Your task to perform on an android device: show emergency info Image 0: 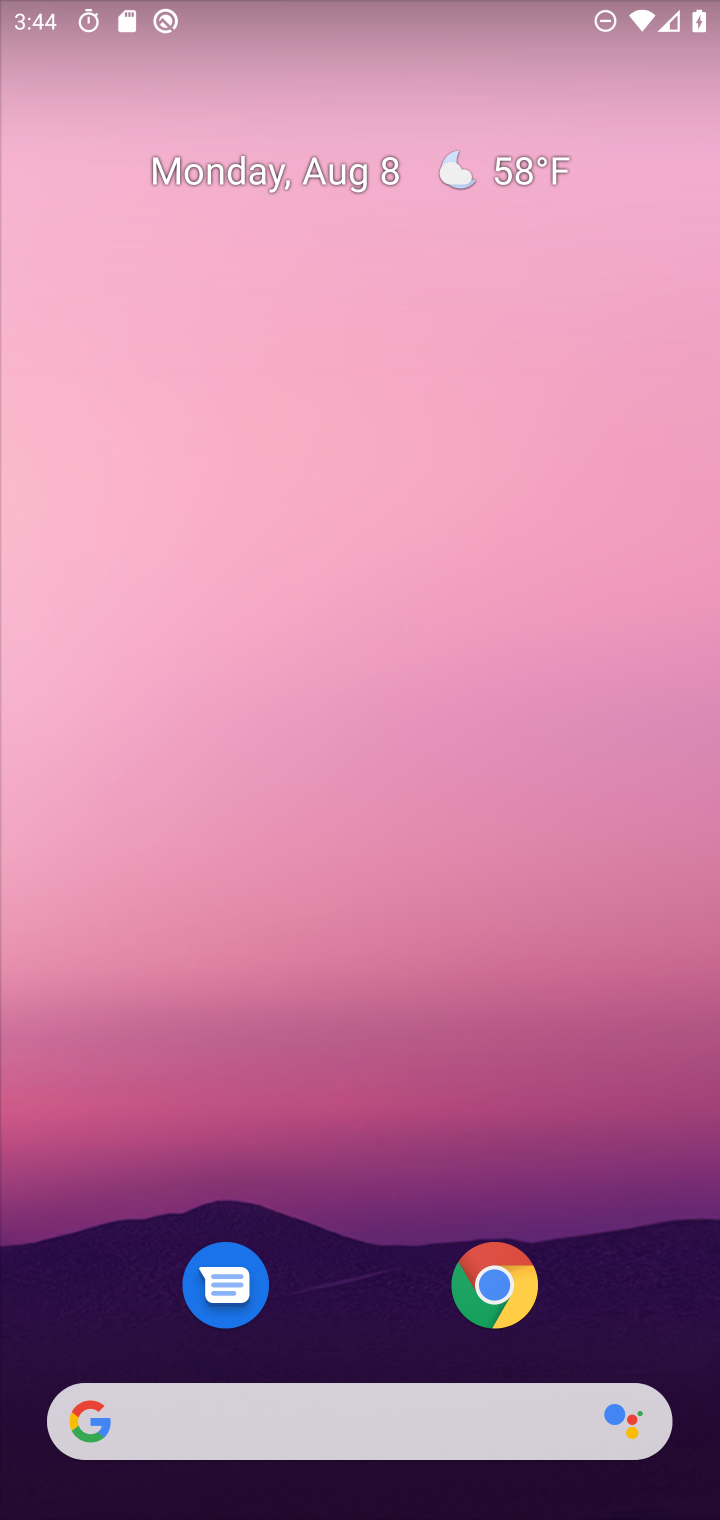
Step 0: drag from (454, 1395) to (718, 33)
Your task to perform on an android device: show emergency info Image 1: 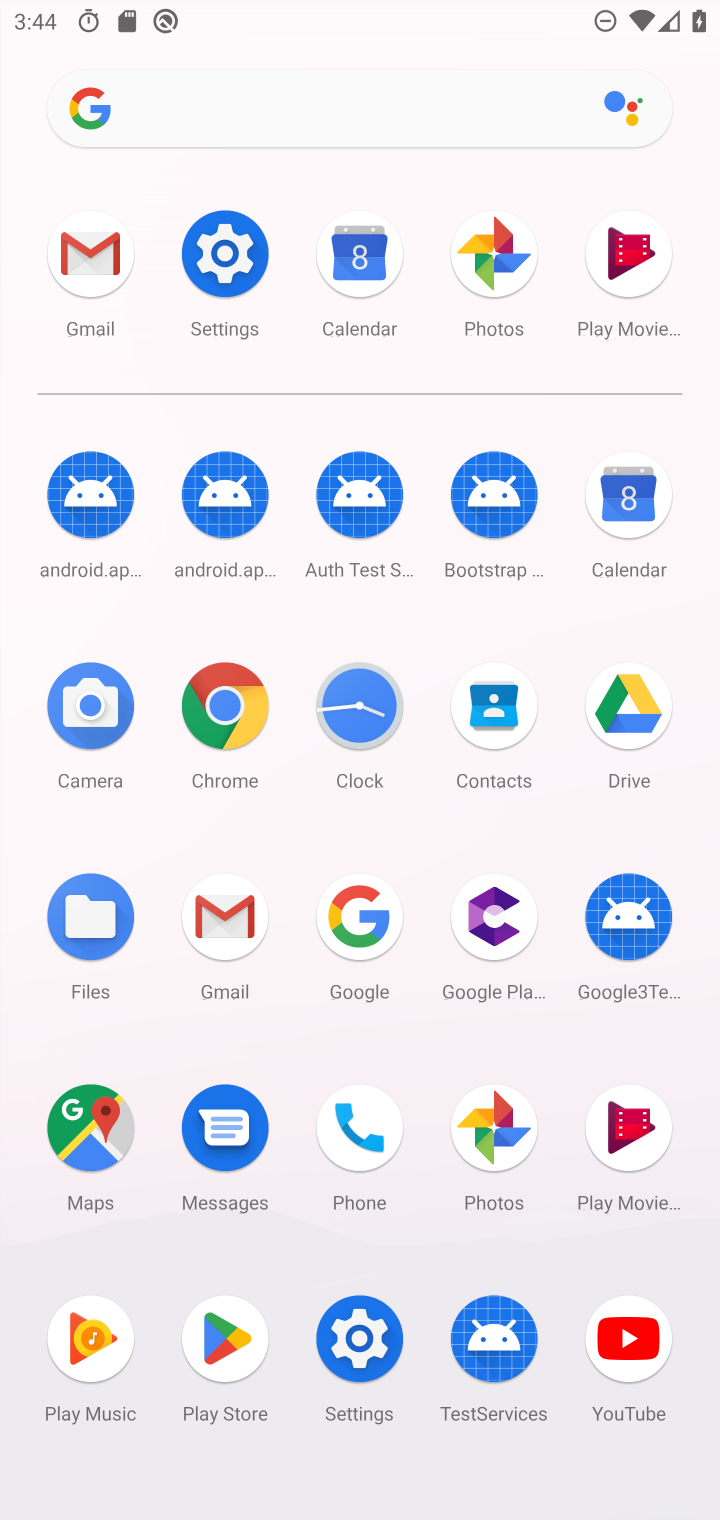
Step 1: click (227, 254)
Your task to perform on an android device: show emergency info Image 2: 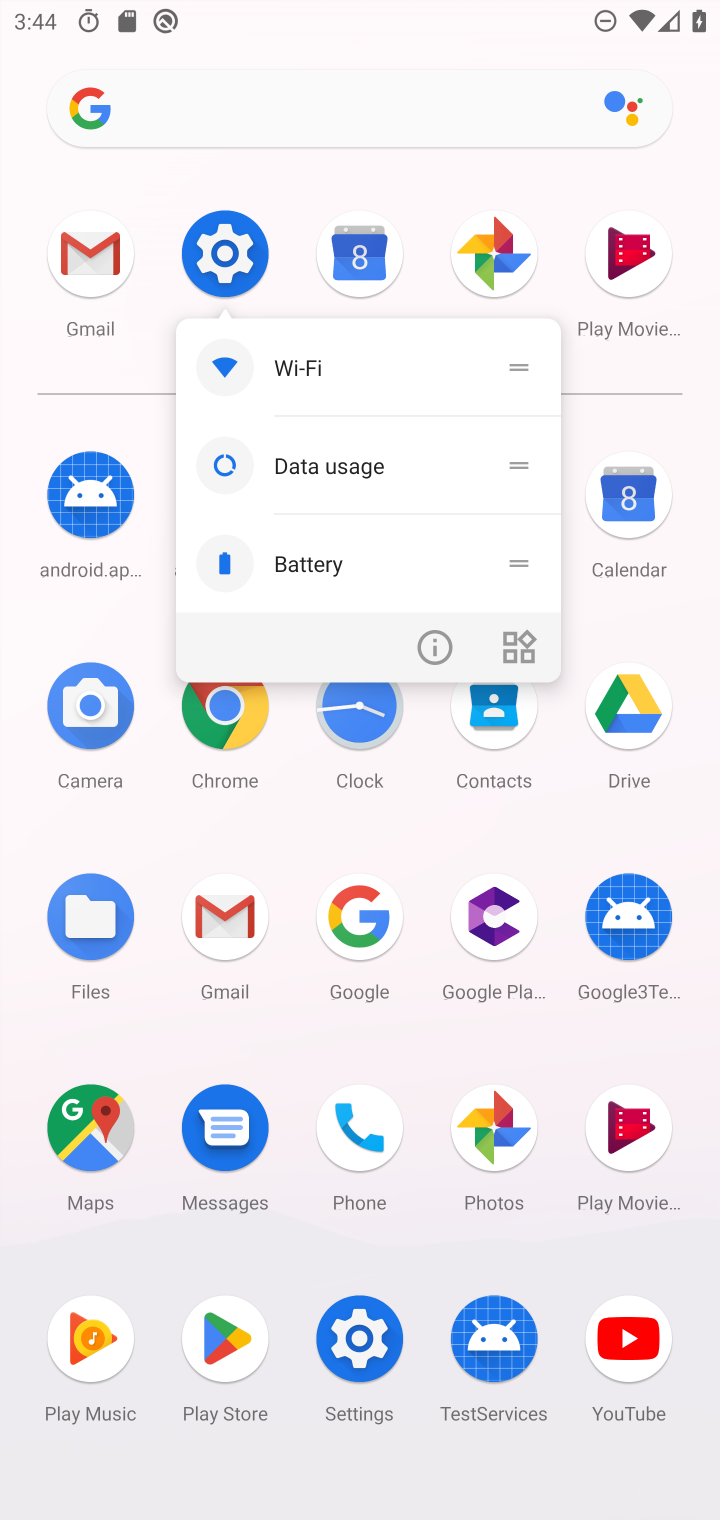
Step 2: click (219, 260)
Your task to perform on an android device: show emergency info Image 3: 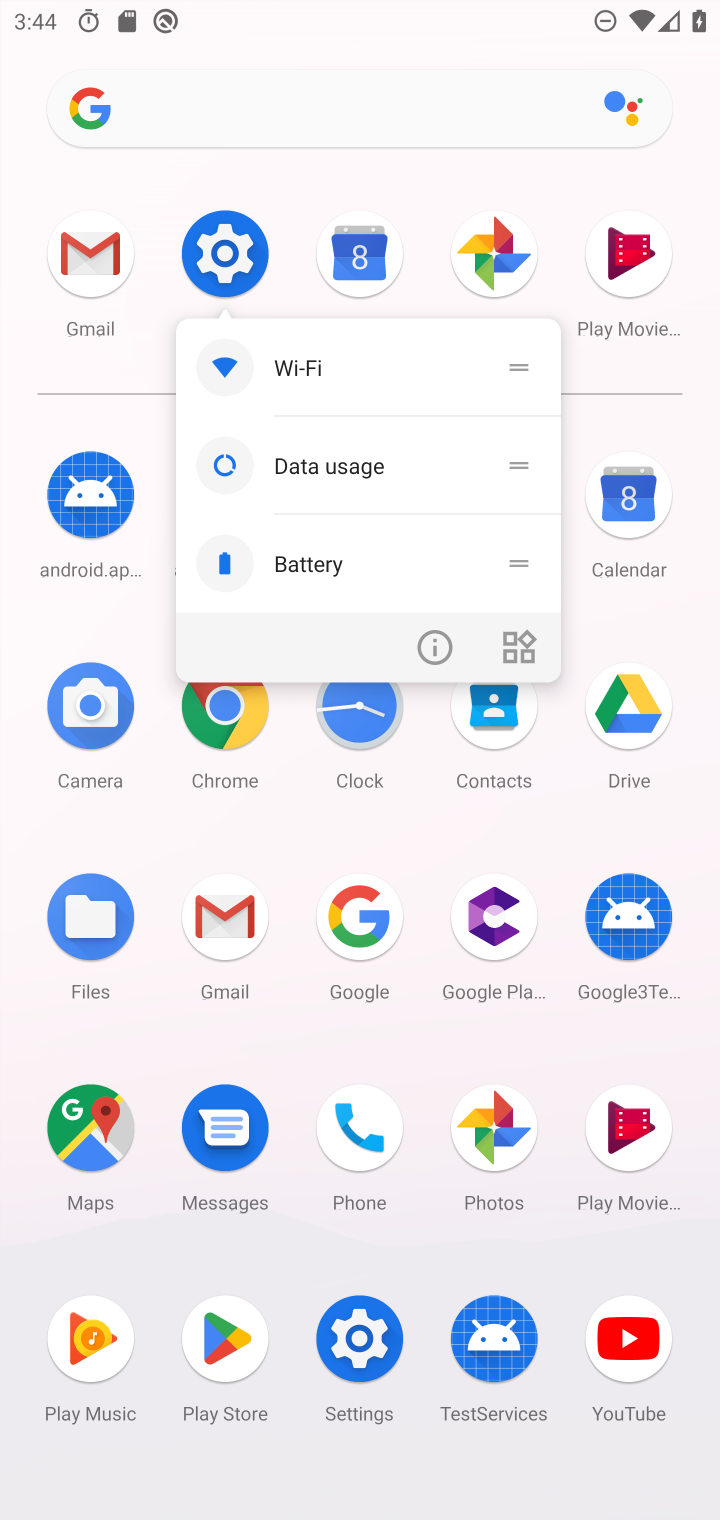
Step 3: click (223, 254)
Your task to perform on an android device: show emergency info Image 4: 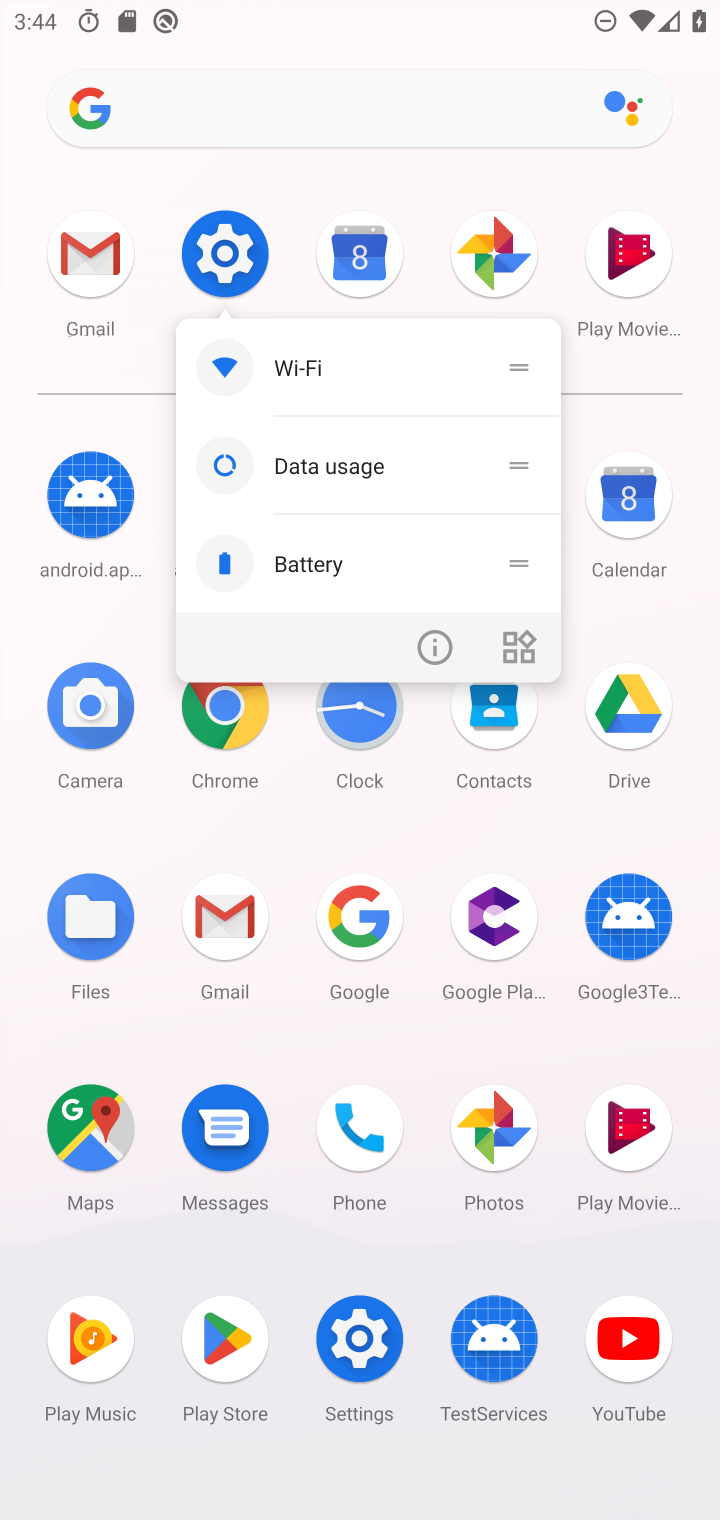
Step 4: click (240, 285)
Your task to perform on an android device: show emergency info Image 5: 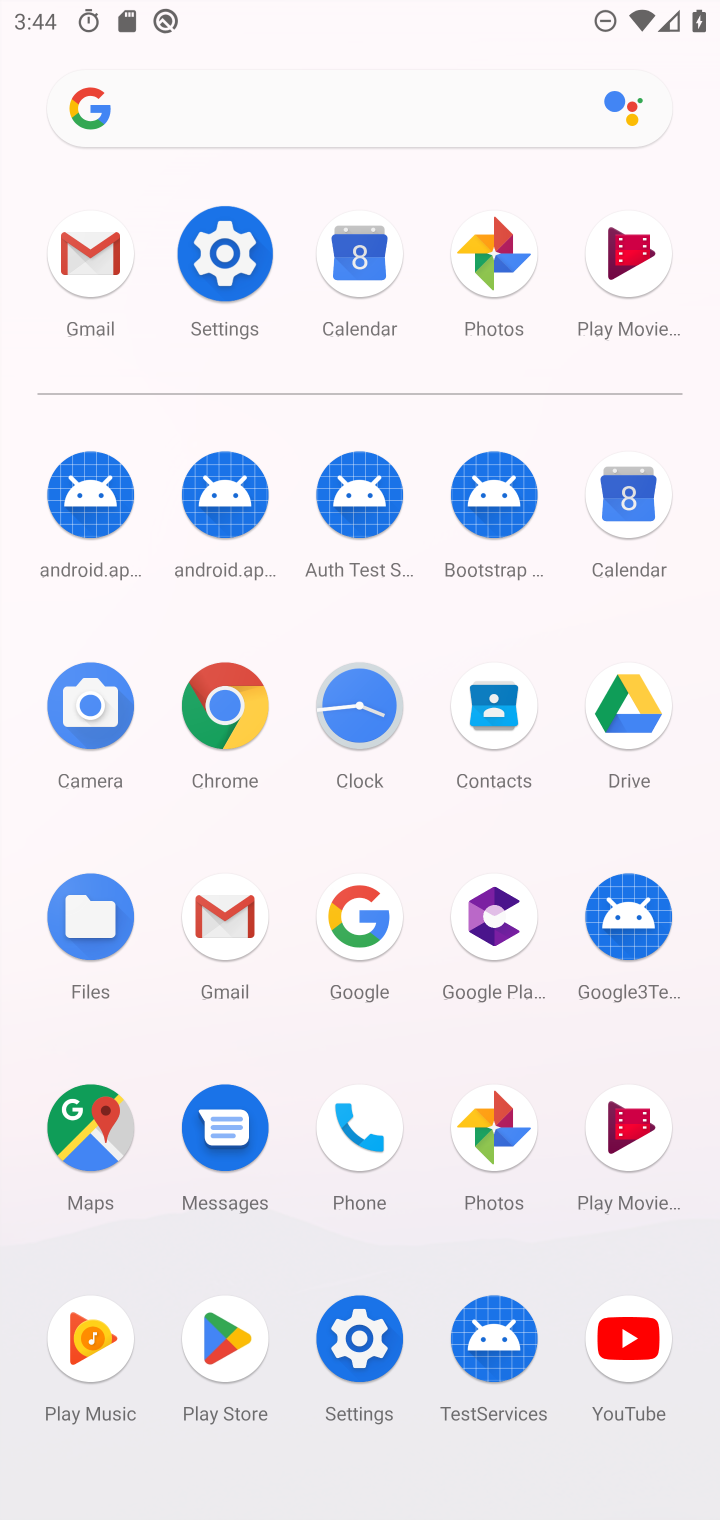
Step 5: click (235, 248)
Your task to perform on an android device: show emergency info Image 6: 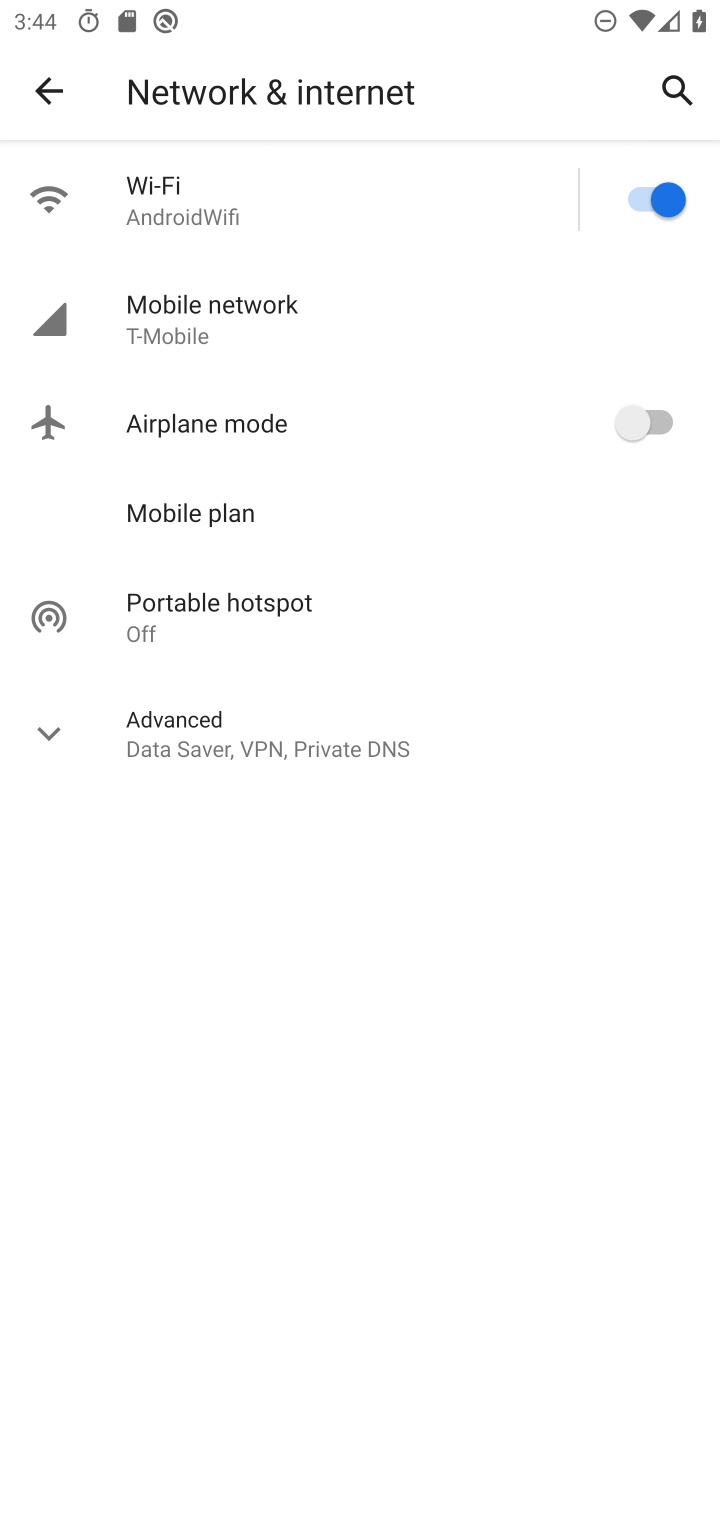
Step 6: drag from (311, 1376) to (469, 355)
Your task to perform on an android device: show emergency info Image 7: 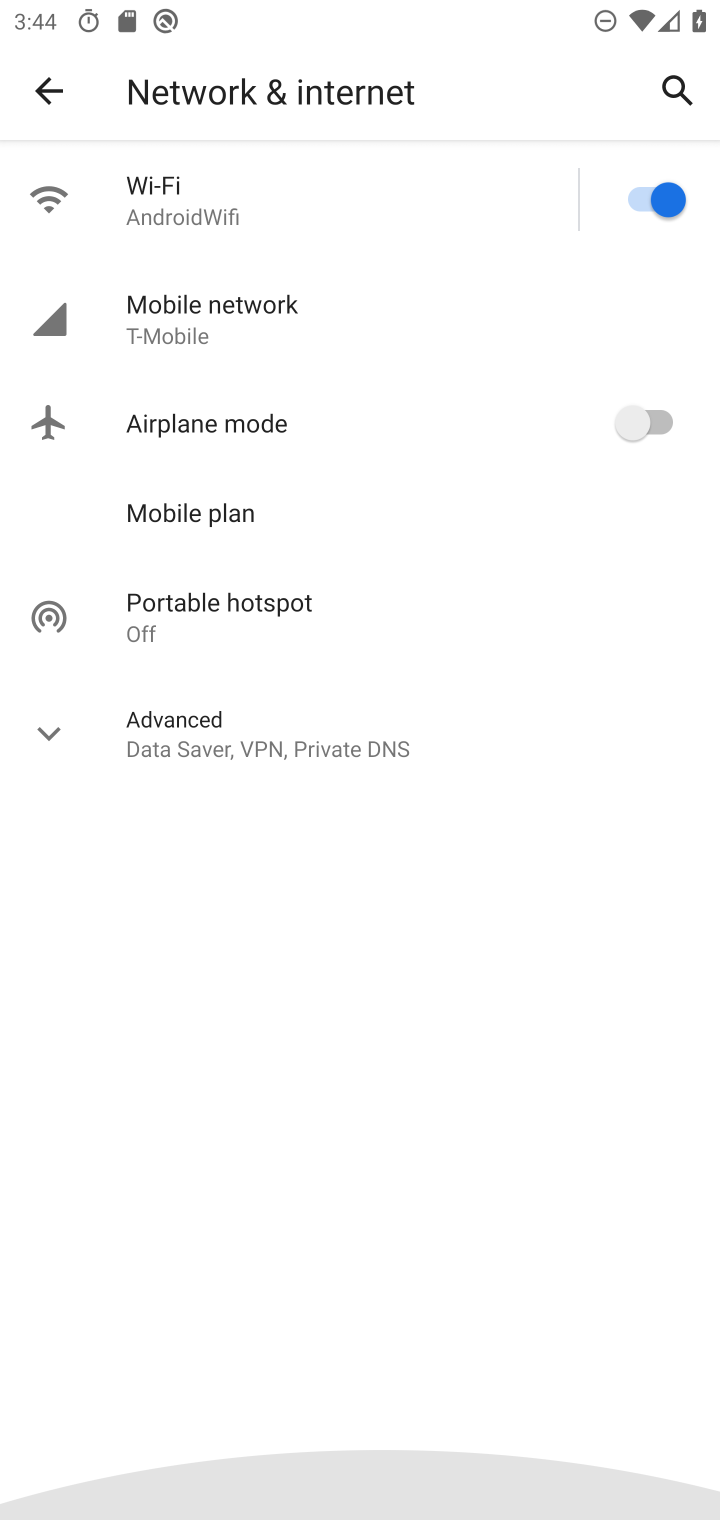
Step 7: click (47, 77)
Your task to perform on an android device: show emergency info Image 8: 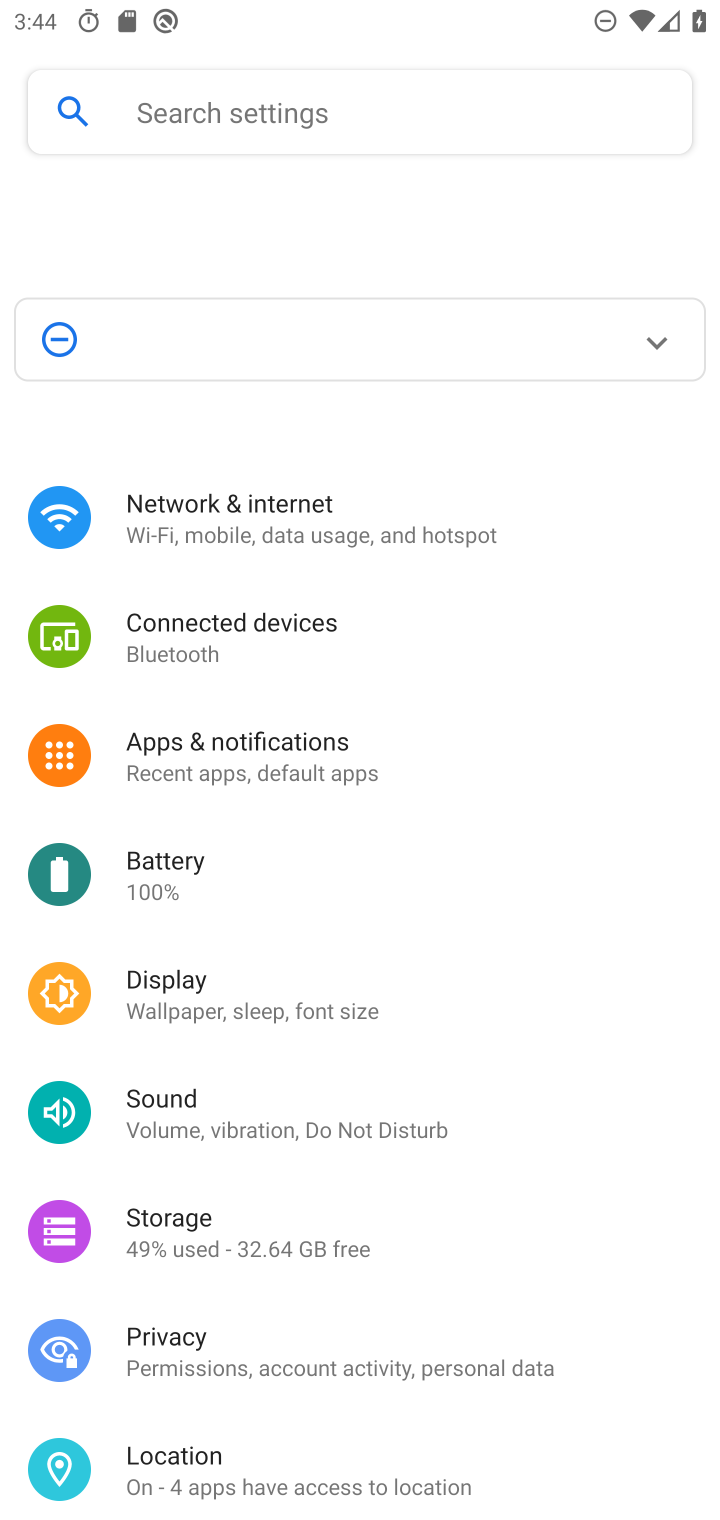
Step 8: drag from (340, 1488) to (470, 85)
Your task to perform on an android device: show emergency info Image 9: 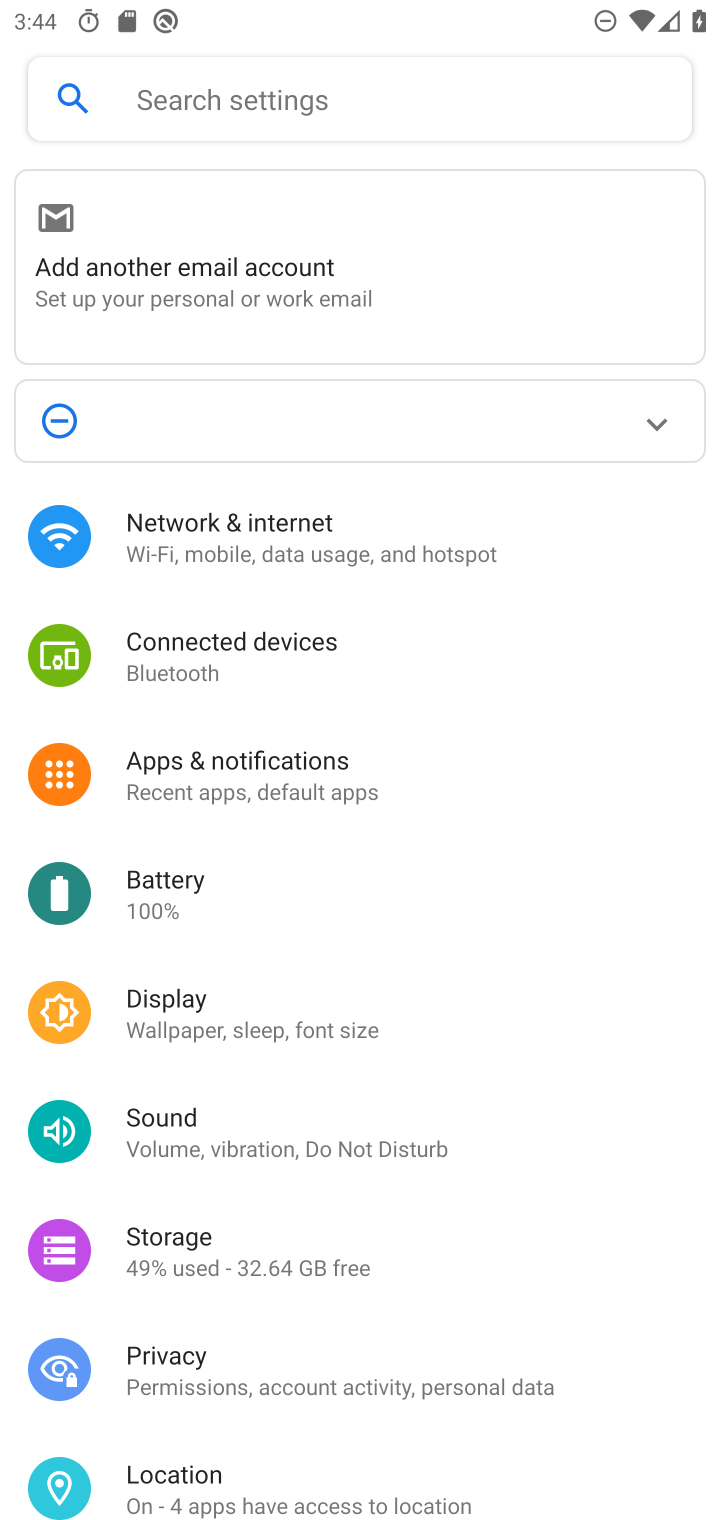
Step 9: drag from (330, 1413) to (488, 32)
Your task to perform on an android device: show emergency info Image 10: 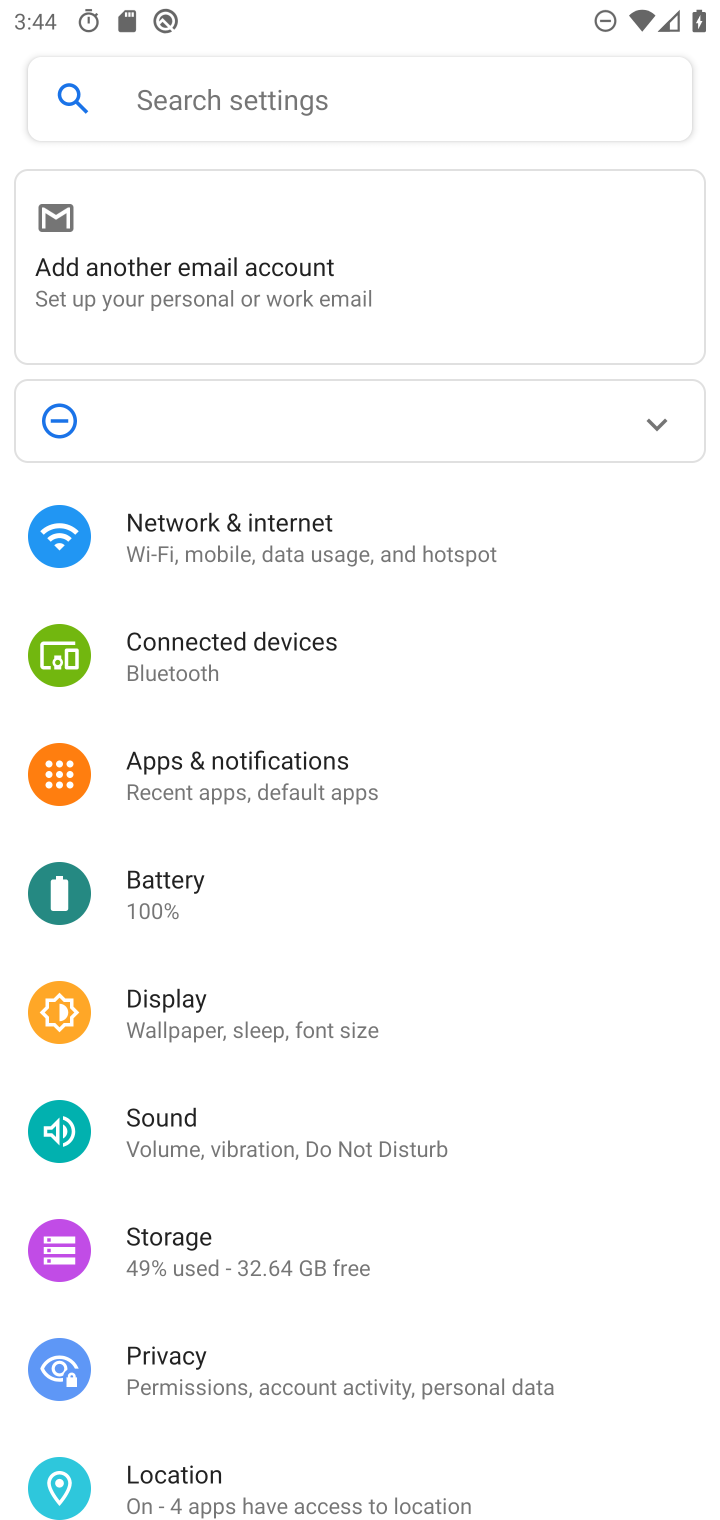
Step 10: drag from (488, 1362) to (563, 19)
Your task to perform on an android device: show emergency info Image 11: 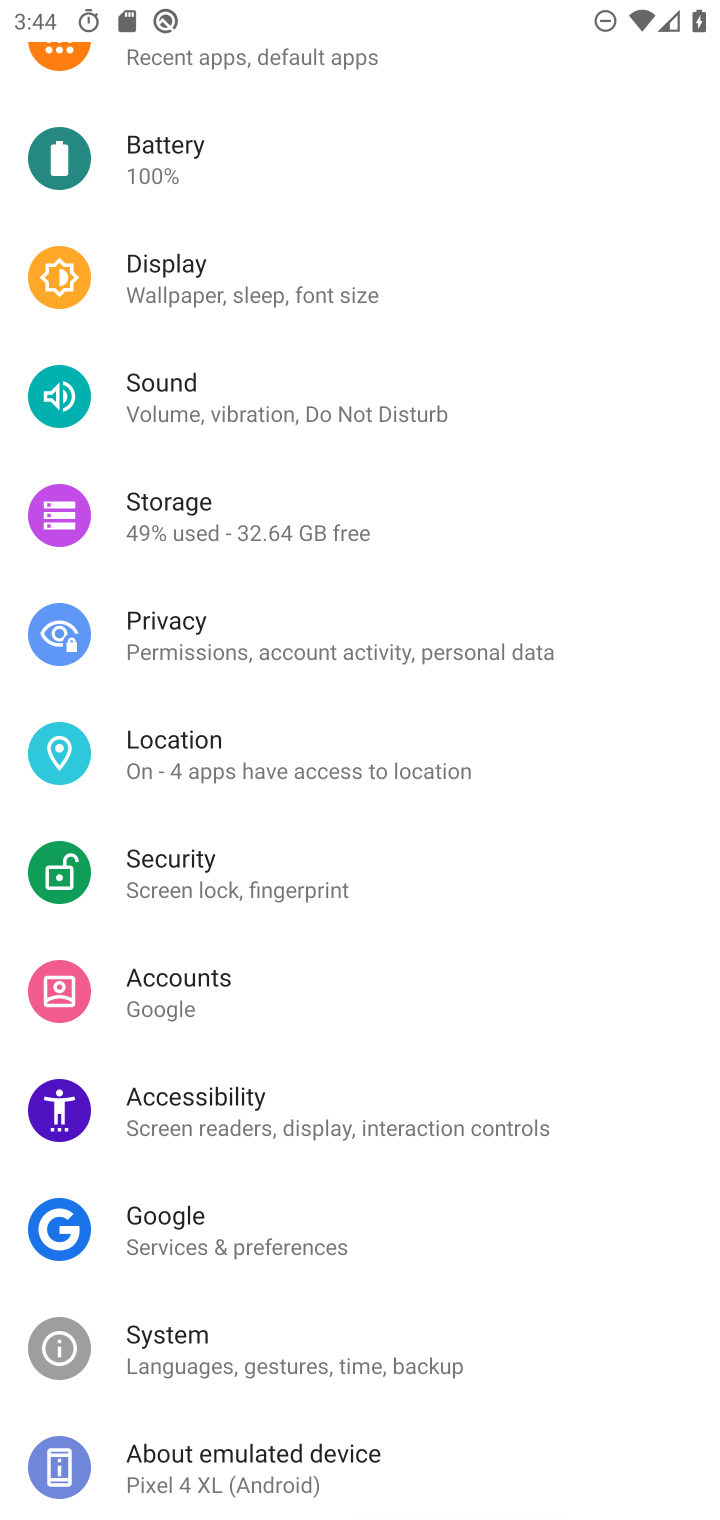
Step 11: drag from (346, 1404) to (518, 101)
Your task to perform on an android device: show emergency info Image 12: 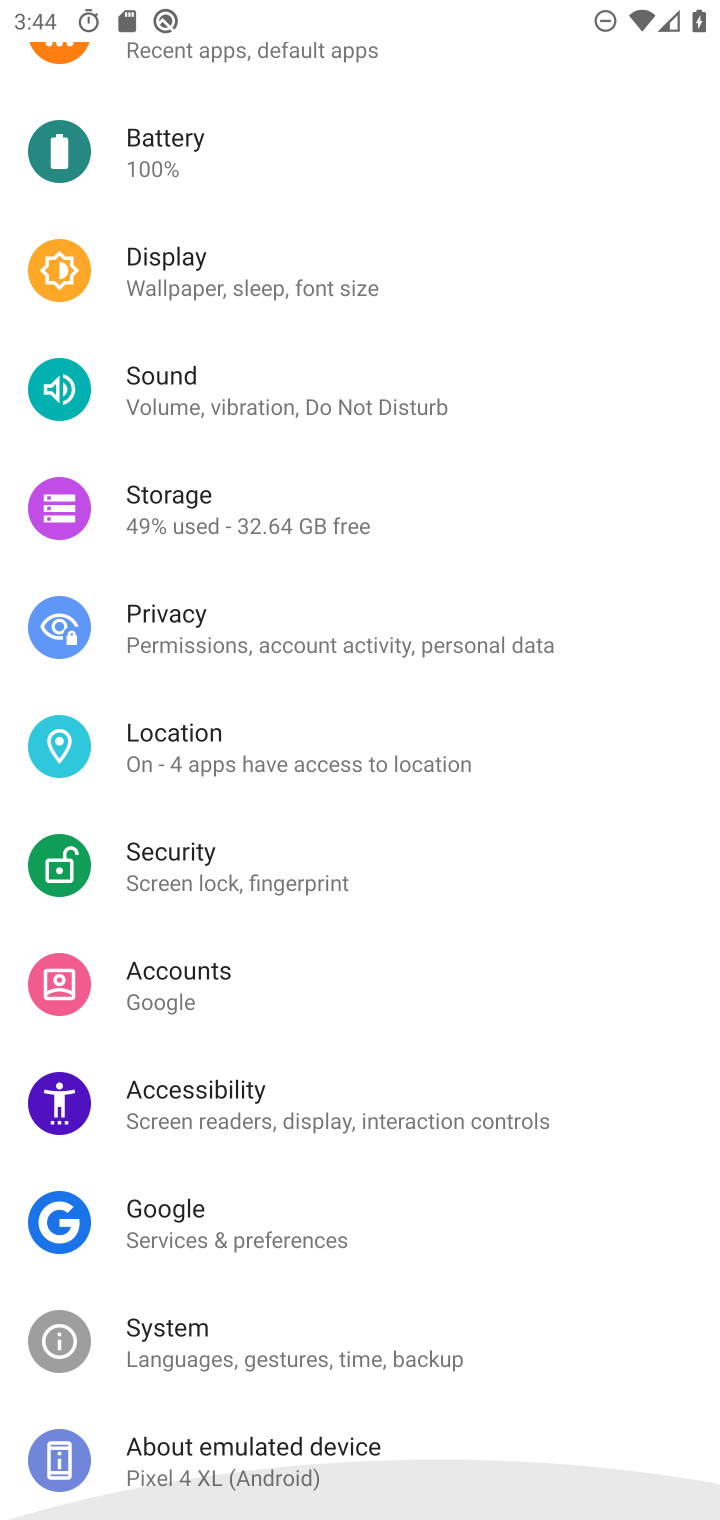
Step 12: click (252, 1452)
Your task to perform on an android device: show emergency info Image 13: 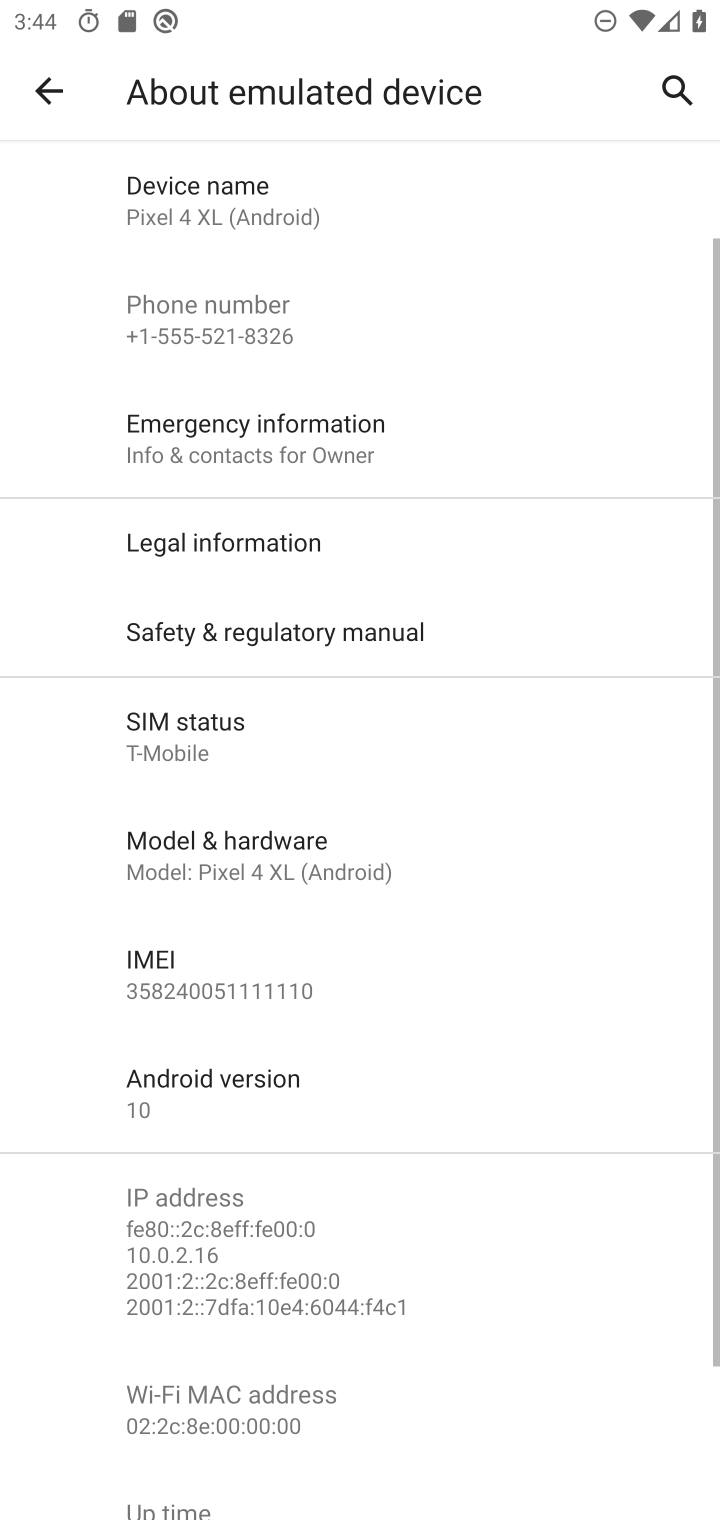
Step 13: click (220, 441)
Your task to perform on an android device: show emergency info Image 14: 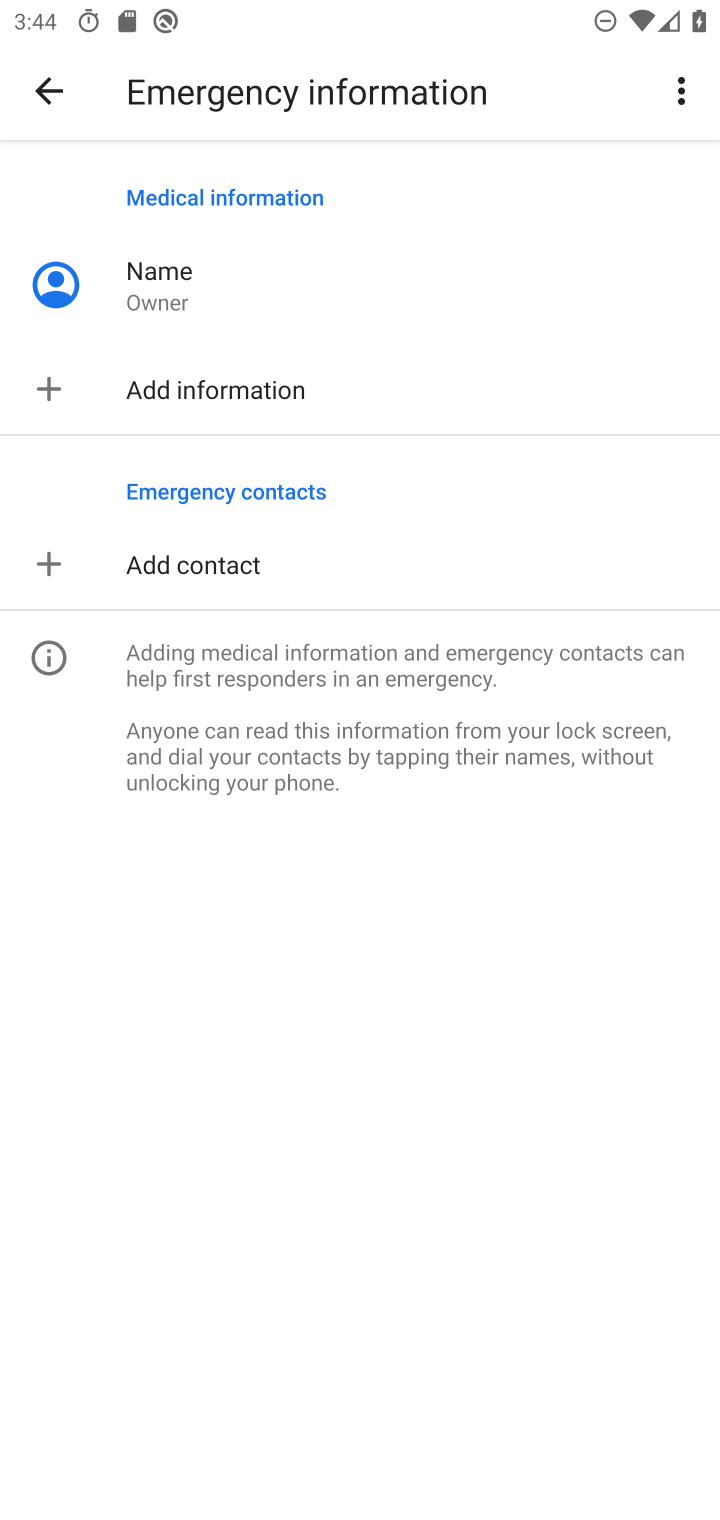
Step 14: task complete